Your task to perform on an android device: Open display settings Image 0: 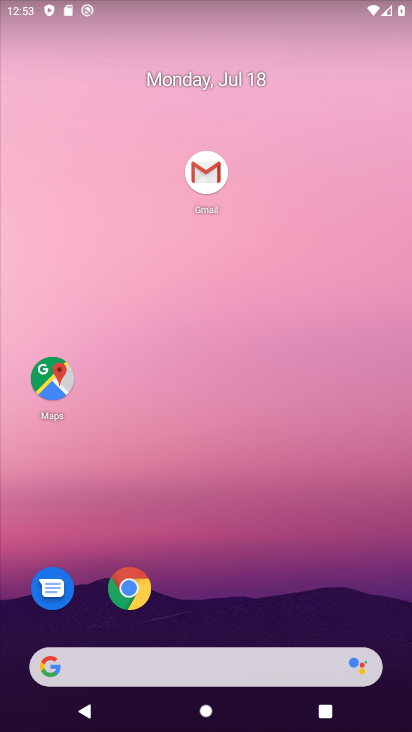
Step 0: drag from (270, 580) to (276, 333)
Your task to perform on an android device: Open display settings Image 1: 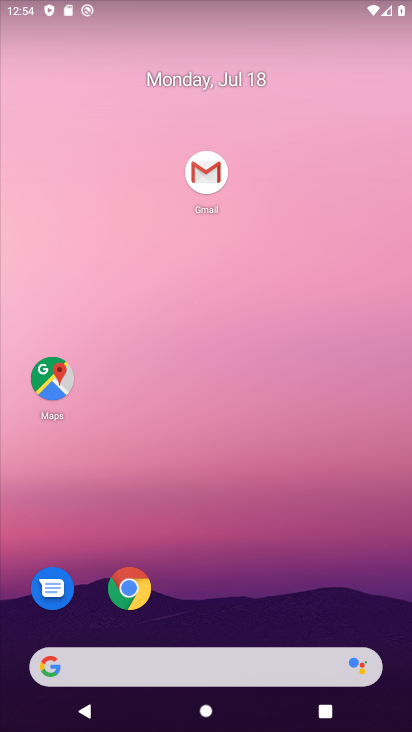
Step 1: drag from (246, 585) to (235, 222)
Your task to perform on an android device: Open display settings Image 2: 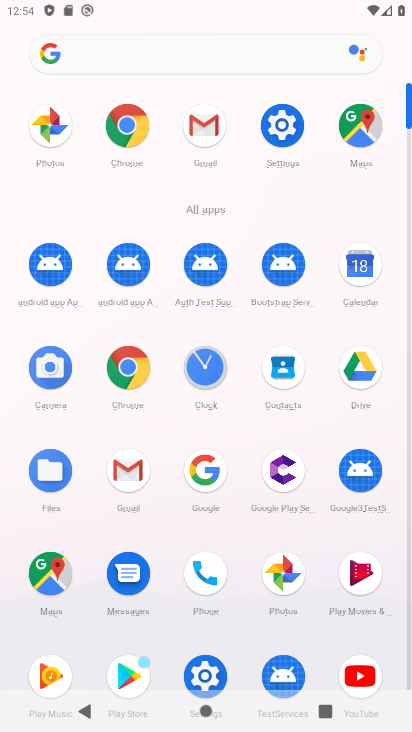
Step 2: click (202, 668)
Your task to perform on an android device: Open display settings Image 3: 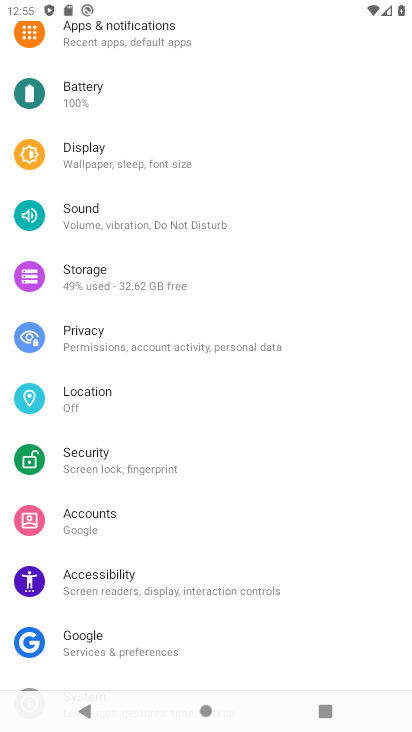
Step 3: click (131, 164)
Your task to perform on an android device: Open display settings Image 4: 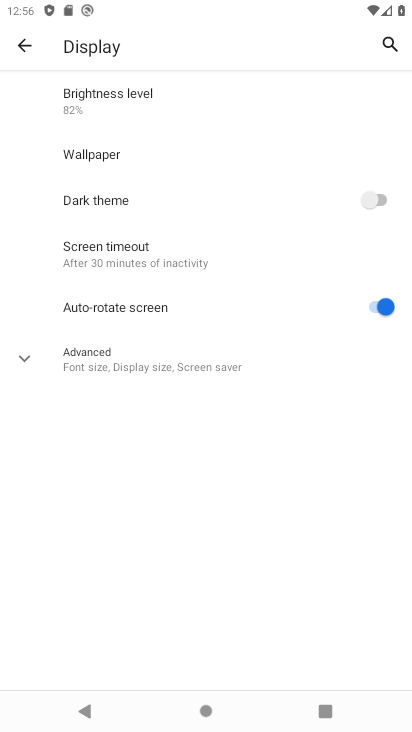
Step 4: task complete